Your task to perform on an android device: remove spam from my inbox in the gmail app Image 0: 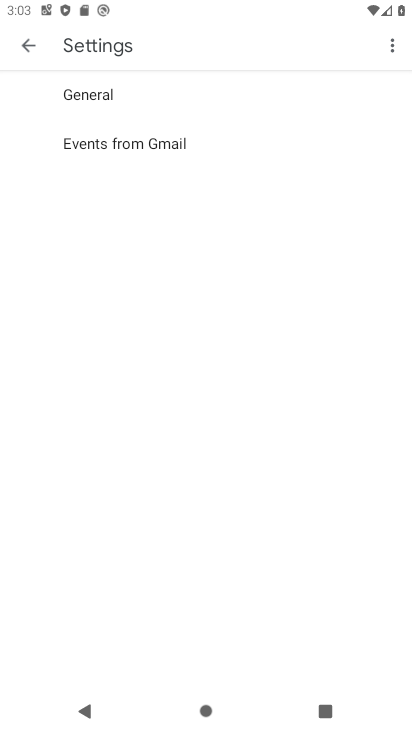
Step 0: press home button
Your task to perform on an android device: remove spam from my inbox in the gmail app Image 1: 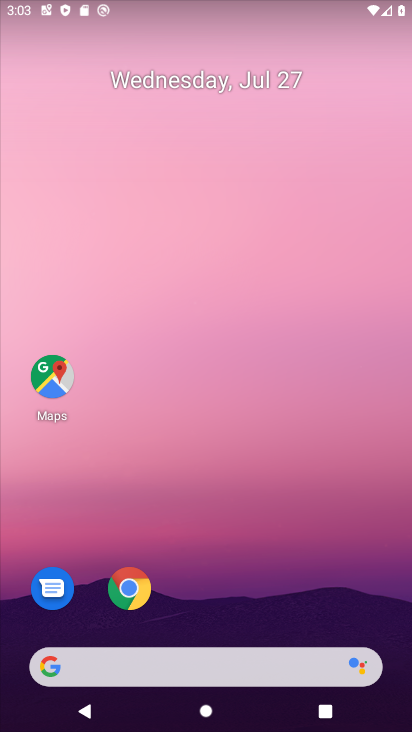
Step 1: drag from (274, 615) to (223, 15)
Your task to perform on an android device: remove spam from my inbox in the gmail app Image 2: 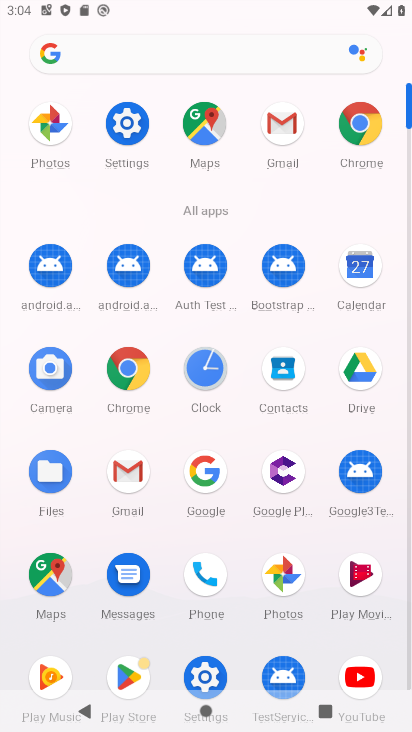
Step 2: click (283, 132)
Your task to perform on an android device: remove spam from my inbox in the gmail app Image 3: 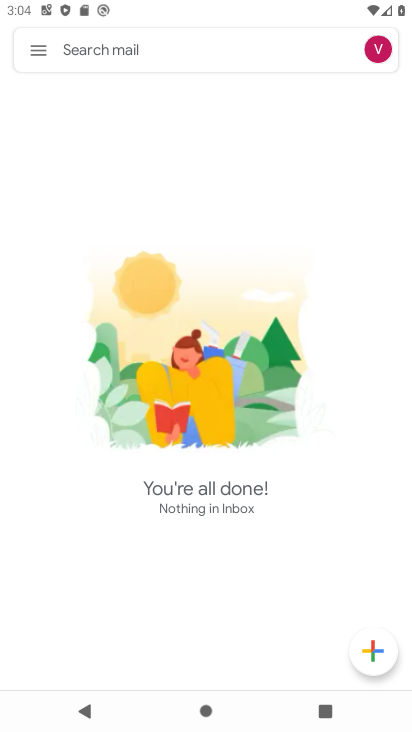
Step 3: click (29, 57)
Your task to perform on an android device: remove spam from my inbox in the gmail app Image 4: 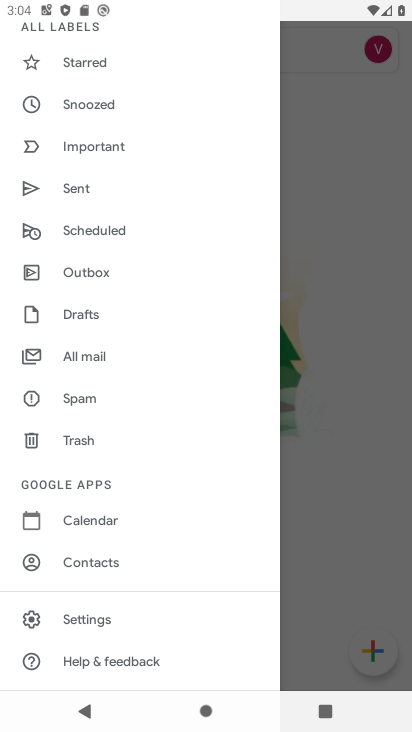
Step 4: click (97, 397)
Your task to perform on an android device: remove spam from my inbox in the gmail app Image 5: 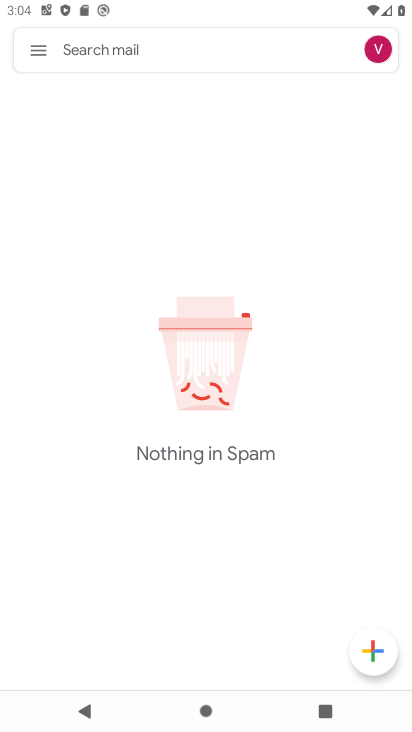
Step 5: click (44, 55)
Your task to perform on an android device: remove spam from my inbox in the gmail app Image 6: 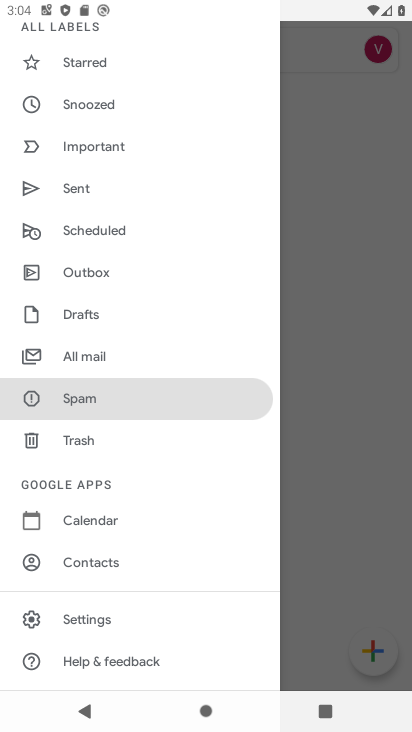
Step 6: click (108, 414)
Your task to perform on an android device: remove spam from my inbox in the gmail app Image 7: 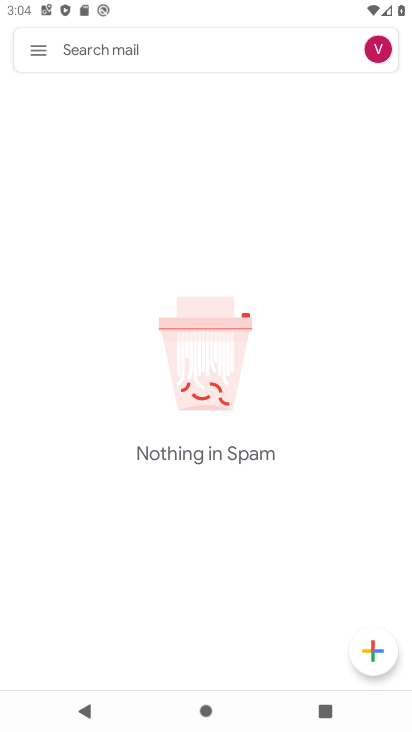
Step 7: task complete